Your task to perform on an android device: open app "Microsoft Excel" (install if not already installed) Image 0: 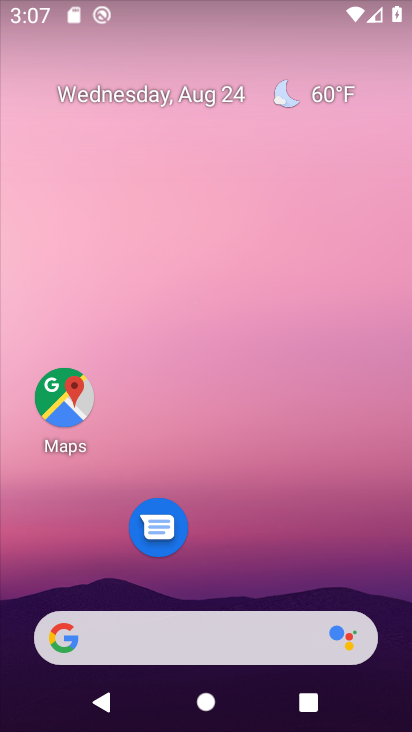
Step 0: drag from (293, 597) to (277, 129)
Your task to perform on an android device: open app "Microsoft Excel" (install if not already installed) Image 1: 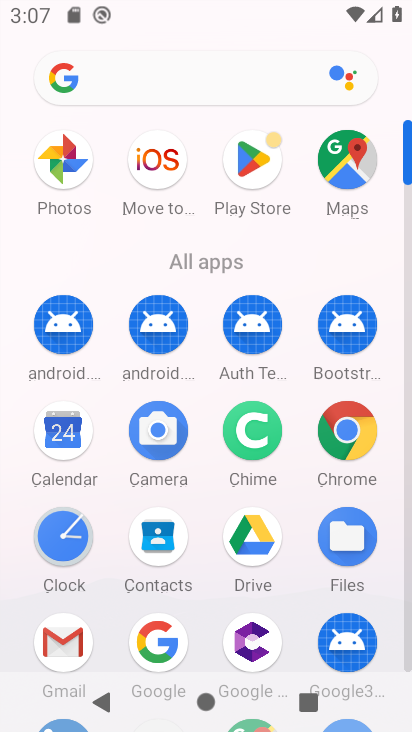
Step 1: click (268, 163)
Your task to perform on an android device: open app "Microsoft Excel" (install if not already installed) Image 2: 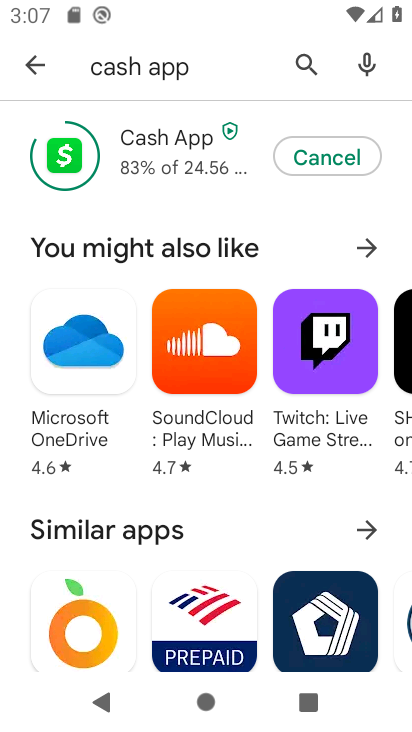
Step 2: click (304, 76)
Your task to perform on an android device: open app "Microsoft Excel" (install if not already installed) Image 3: 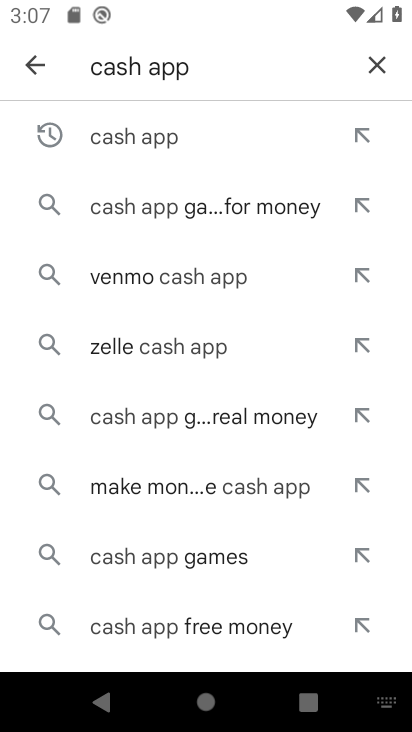
Step 3: click (375, 76)
Your task to perform on an android device: open app "Microsoft Excel" (install if not already installed) Image 4: 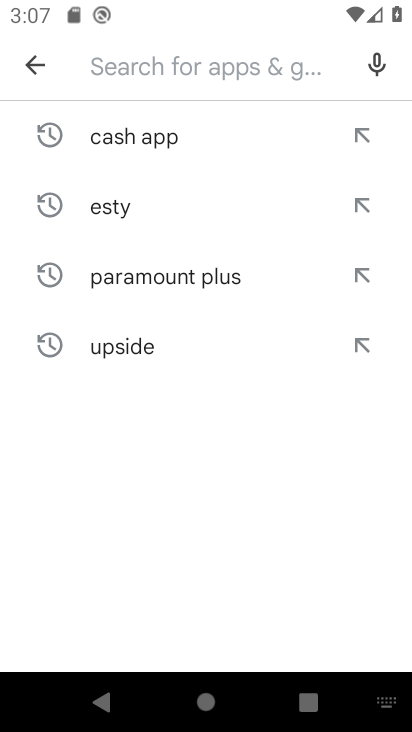
Step 4: type "microsoft excel"
Your task to perform on an android device: open app "Microsoft Excel" (install if not already installed) Image 5: 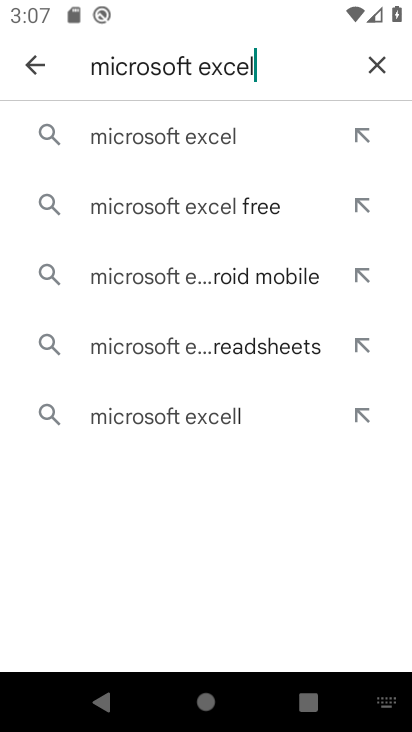
Step 5: click (162, 153)
Your task to perform on an android device: open app "Microsoft Excel" (install if not already installed) Image 6: 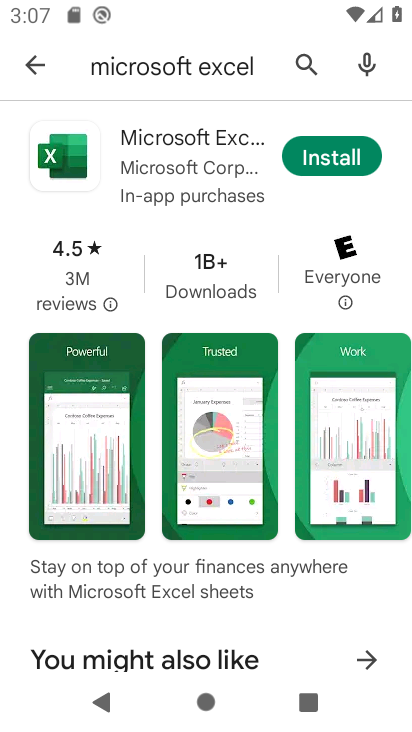
Step 6: click (328, 151)
Your task to perform on an android device: open app "Microsoft Excel" (install if not already installed) Image 7: 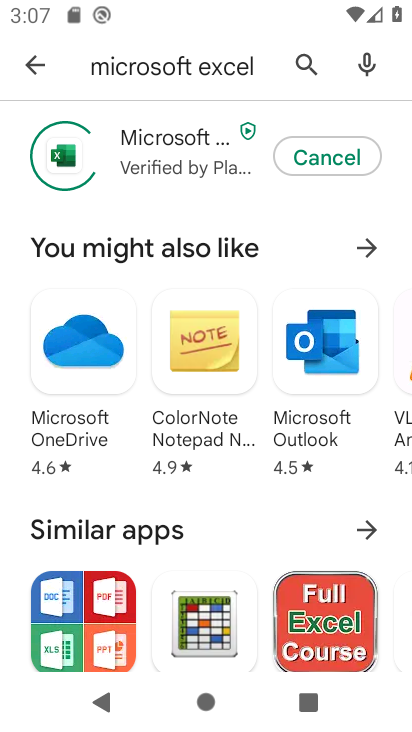
Step 7: task complete